Your task to perform on an android device: open wifi settings Image 0: 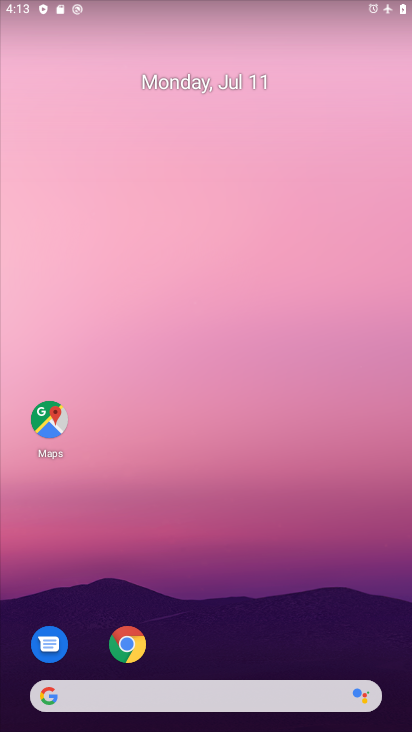
Step 0: drag from (304, 698) to (409, 48)
Your task to perform on an android device: open wifi settings Image 1: 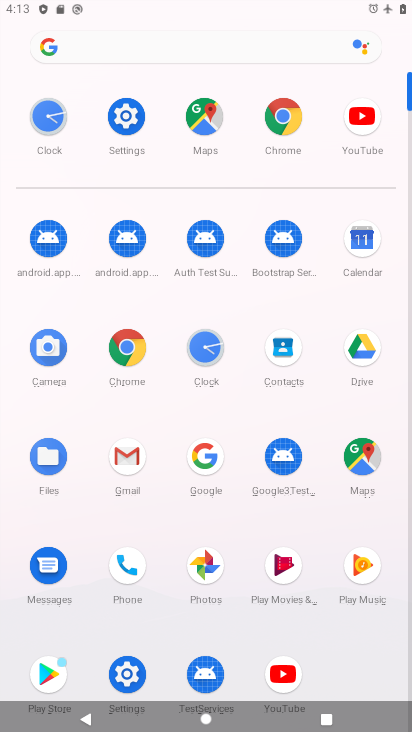
Step 1: click (124, 110)
Your task to perform on an android device: open wifi settings Image 2: 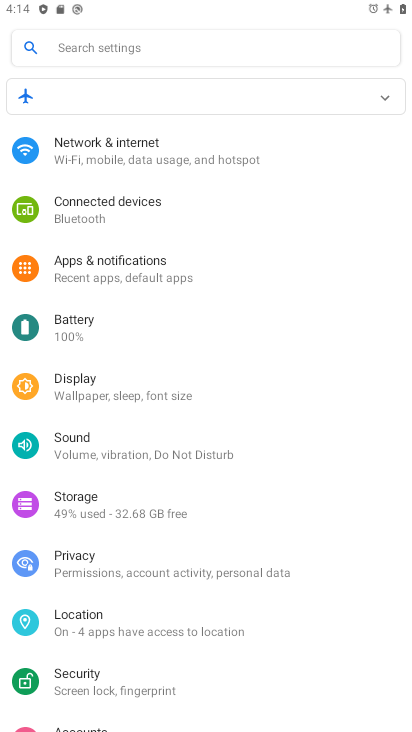
Step 2: click (135, 142)
Your task to perform on an android device: open wifi settings Image 3: 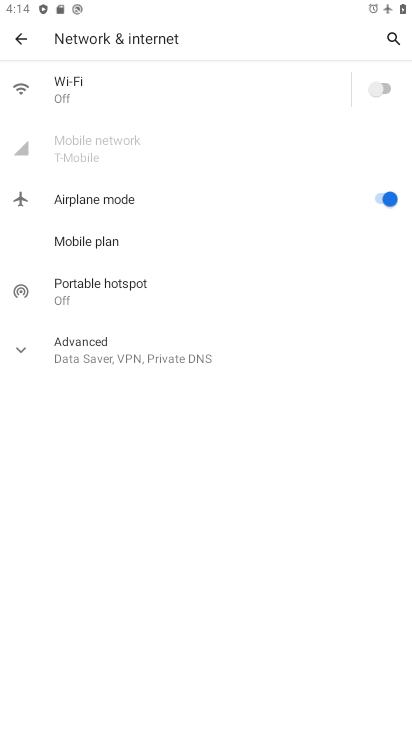
Step 3: click (154, 80)
Your task to perform on an android device: open wifi settings Image 4: 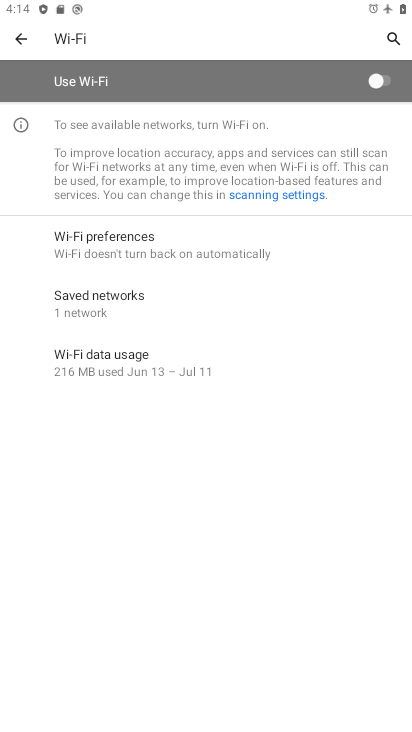
Step 4: task complete